Your task to perform on an android device: change the clock style Image 0: 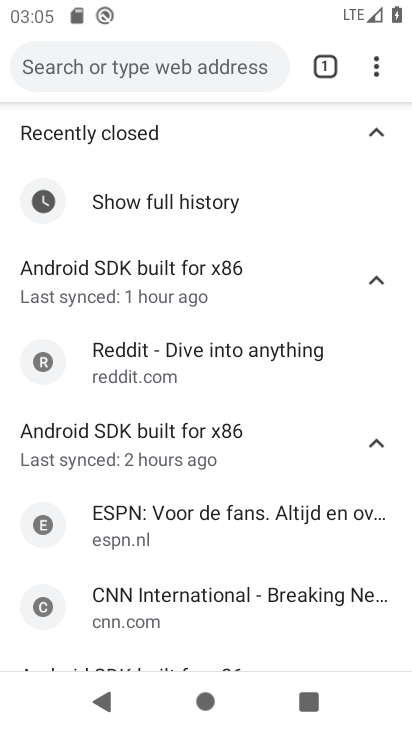
Step 0: press home button
Your task to perform on an android device: change the clock style Image 1: 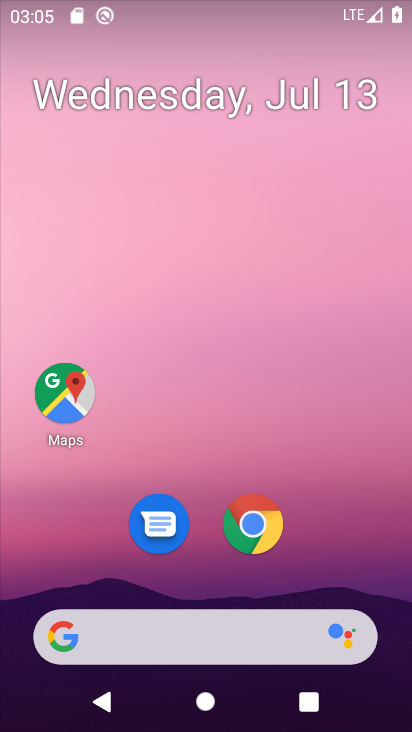
Step 1: drag from (326, 522) to (326, 15)
Your task to perform on an android device: change the clock style Image 2: 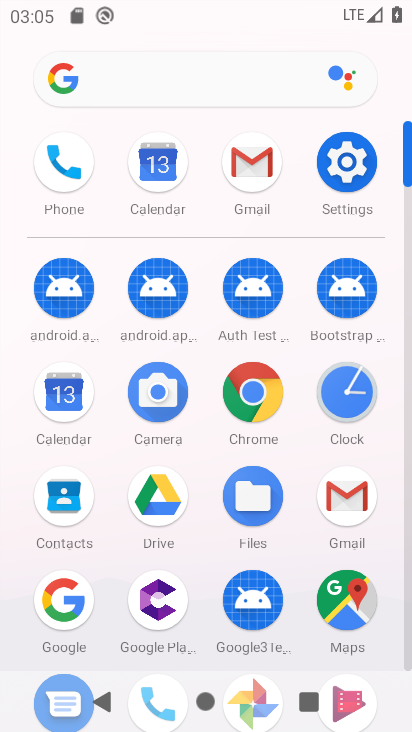
Step 2: click (338, 396)
Your task to perform on an android device: change the clock style Image 3: 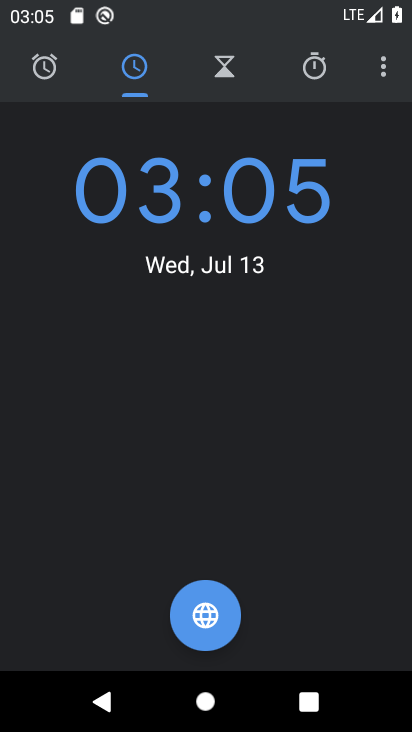
Step 3: click (384, 75)
Your task to perform on an android device: change the clock style Image 4: 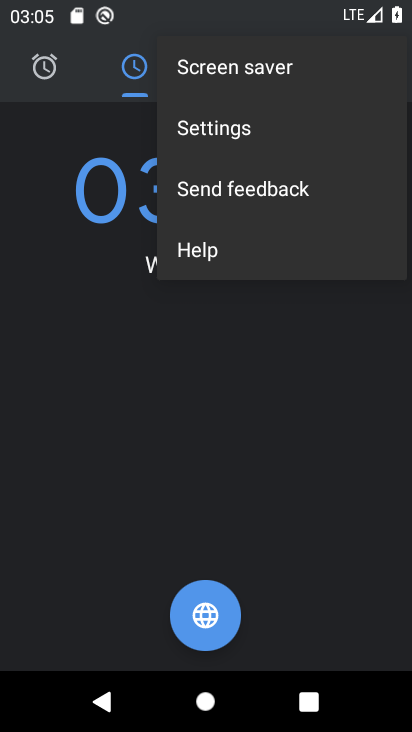
Step 4: click (247, 130)
Your task to perform on an android device: change the clock style Image 5: 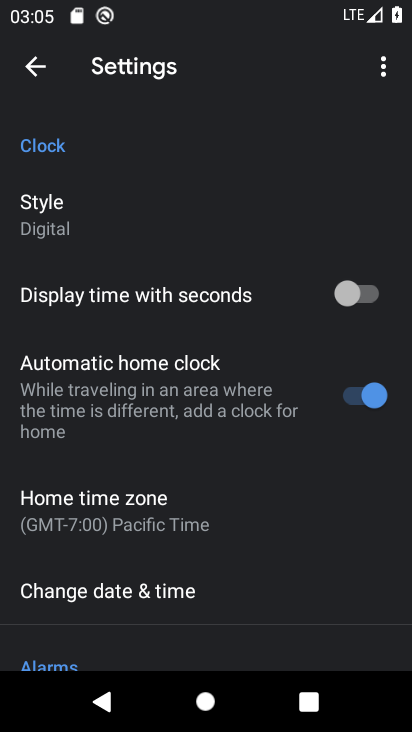
Step 5: click (66, 205)
Your task to perform on an android device: change the clock style Image 6: 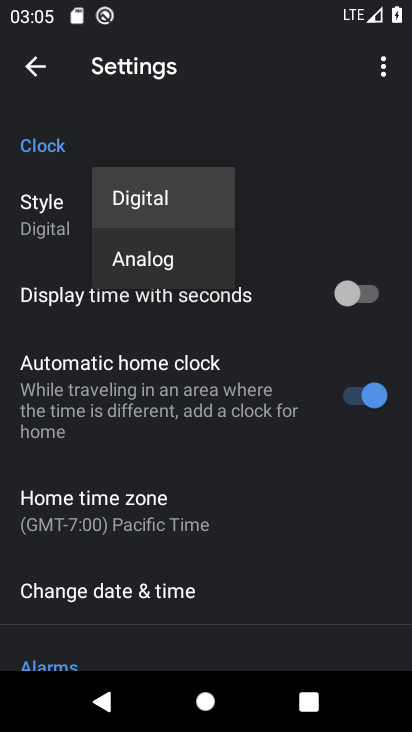
Step 6: click (141, 261)
Your task to perform on an android device: change the clock style Image 7: 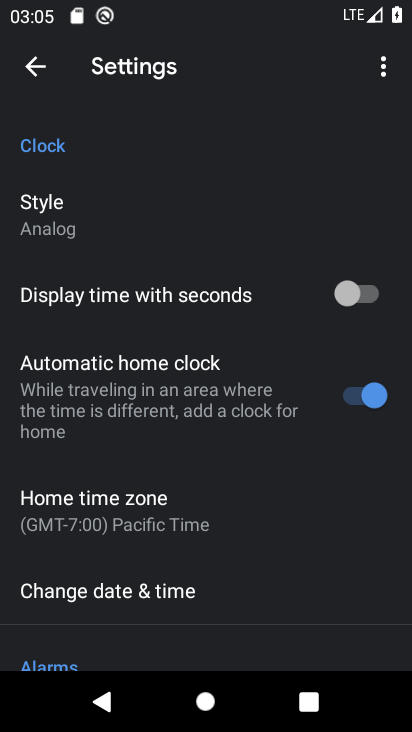
Step 7: click (38, 63)
Your task to perform on an android device: change the clock style Image 8: 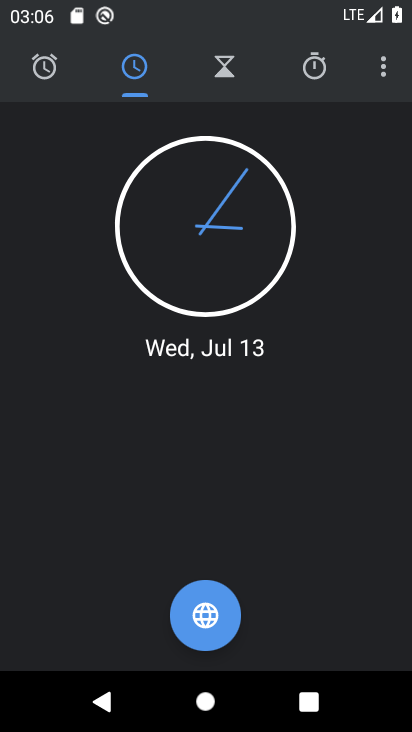
Step 8: task complete